Your task to perform on an android device: see tabs open on other devices in the chrome app Image 0: 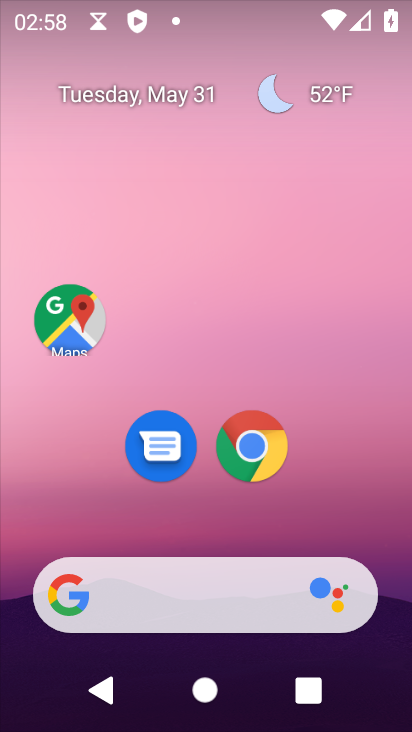
Step 0: click (254, 445)
Your task to perform on an android device: see tabs open on other devices in the chrome app Image 1: 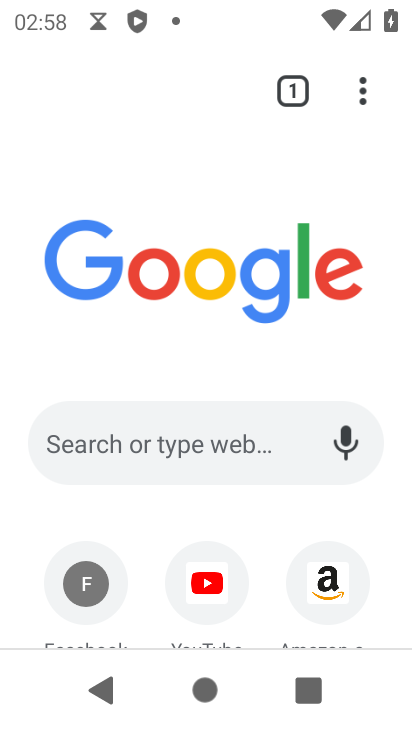
Step 1: click (361, 93)
Your task to perform on an android device: see tabs open on other devices in the chrome app Image 2: 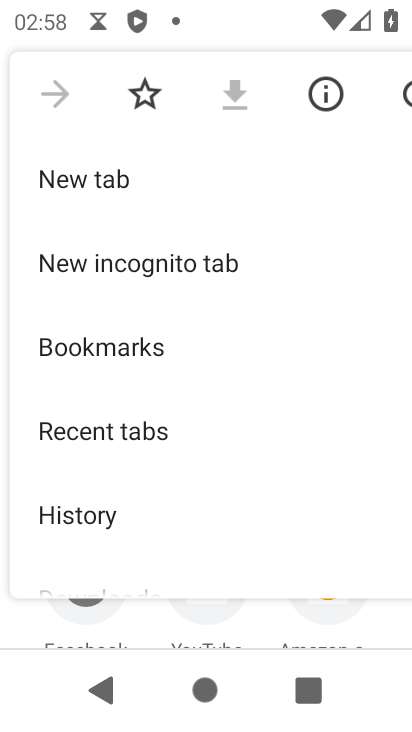
Step 2: click (112, 434)
Your task to perform on an android device: see tabs open on other devices in the chrome app Image 3: 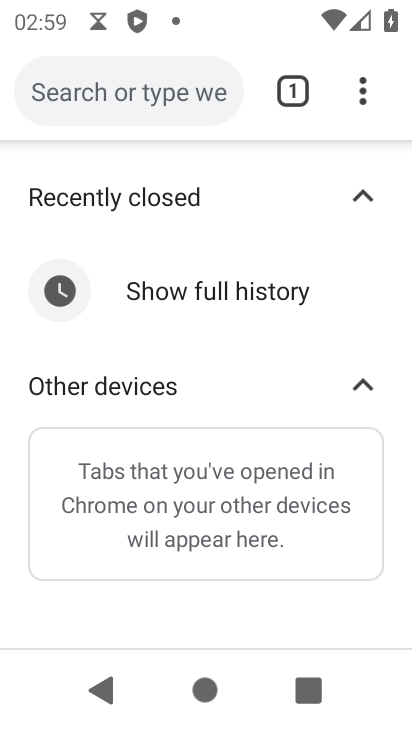
Step 3: task complete